Your task to perform on an android device: Open the calendar app, open the side menu, and click the "Day" option Image 0: 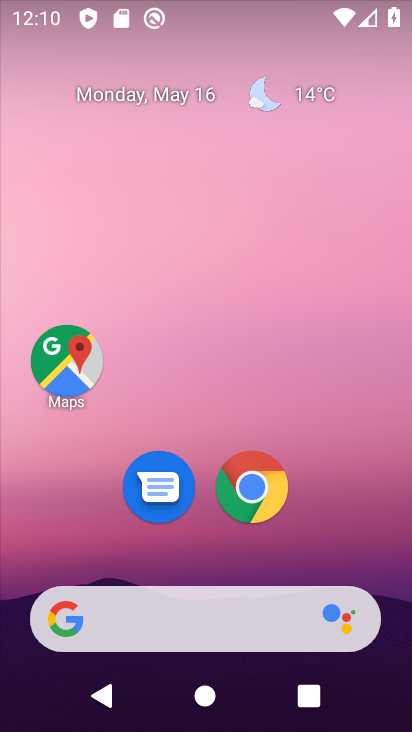
Step 0: drag from (195, 630) to (355, 71)
Your task to perform on an android device: Open the calendar app, open the side menu, and click the "Day" option Image 1: 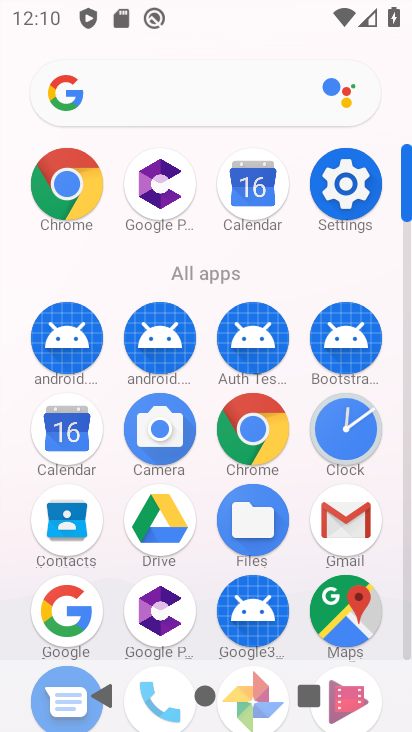
Step 1: click (71, 442)
Your task to perform on an android device: Open the calendar app, open the side menu, and click the "Day" option Image 2: 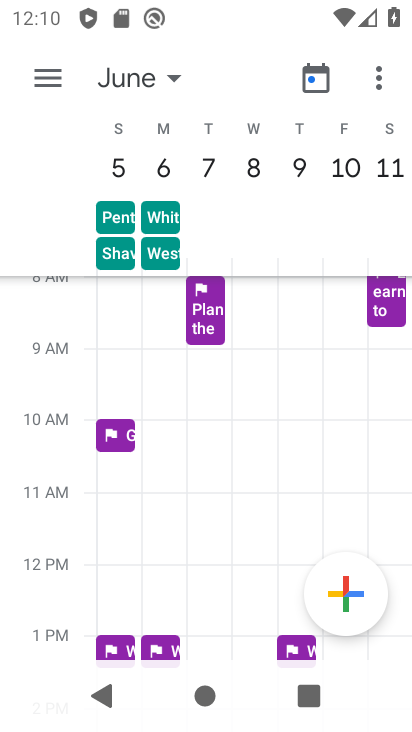
Step 2: click (52, 80)
Your task to perform on an android device: Open the calendar app, open the side menu, and click the "Day" option Image 3: 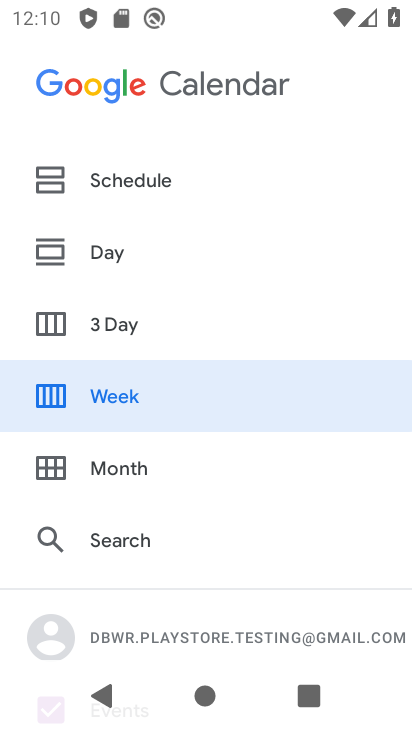
Step 3: click (102, 252)
Your task to perform on an android device: Open the calendar app, open the side menu, and click the "Day" option Image 4: 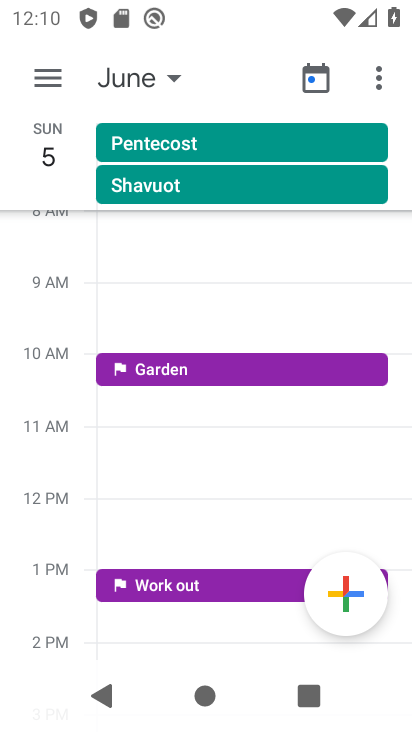
Step 4: task complete